Your task to perform on an android device: remove spam from my inbox in the gmail app Image 0: 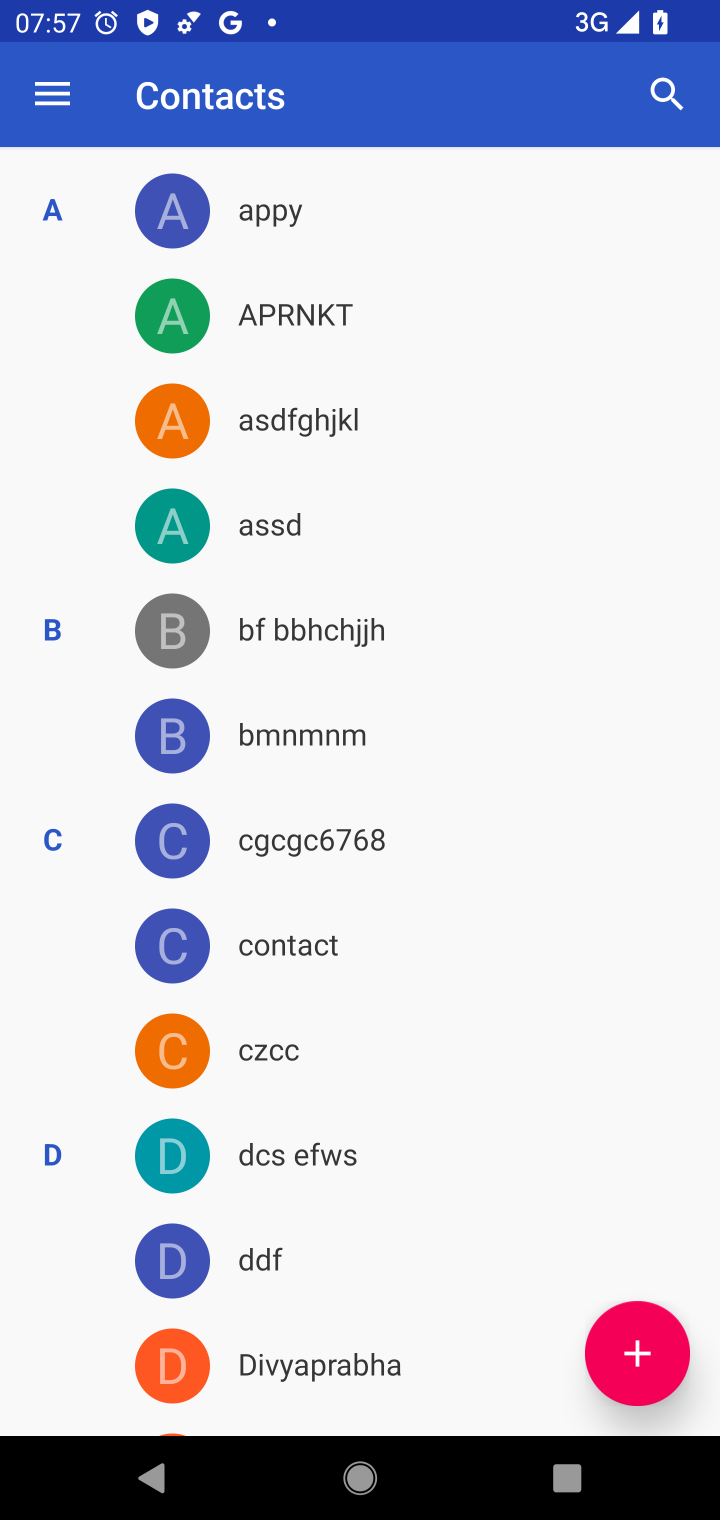
Step 0: press home button
Your task to perform on an android device: remove spam from my inbox in the gmail app Image 1: 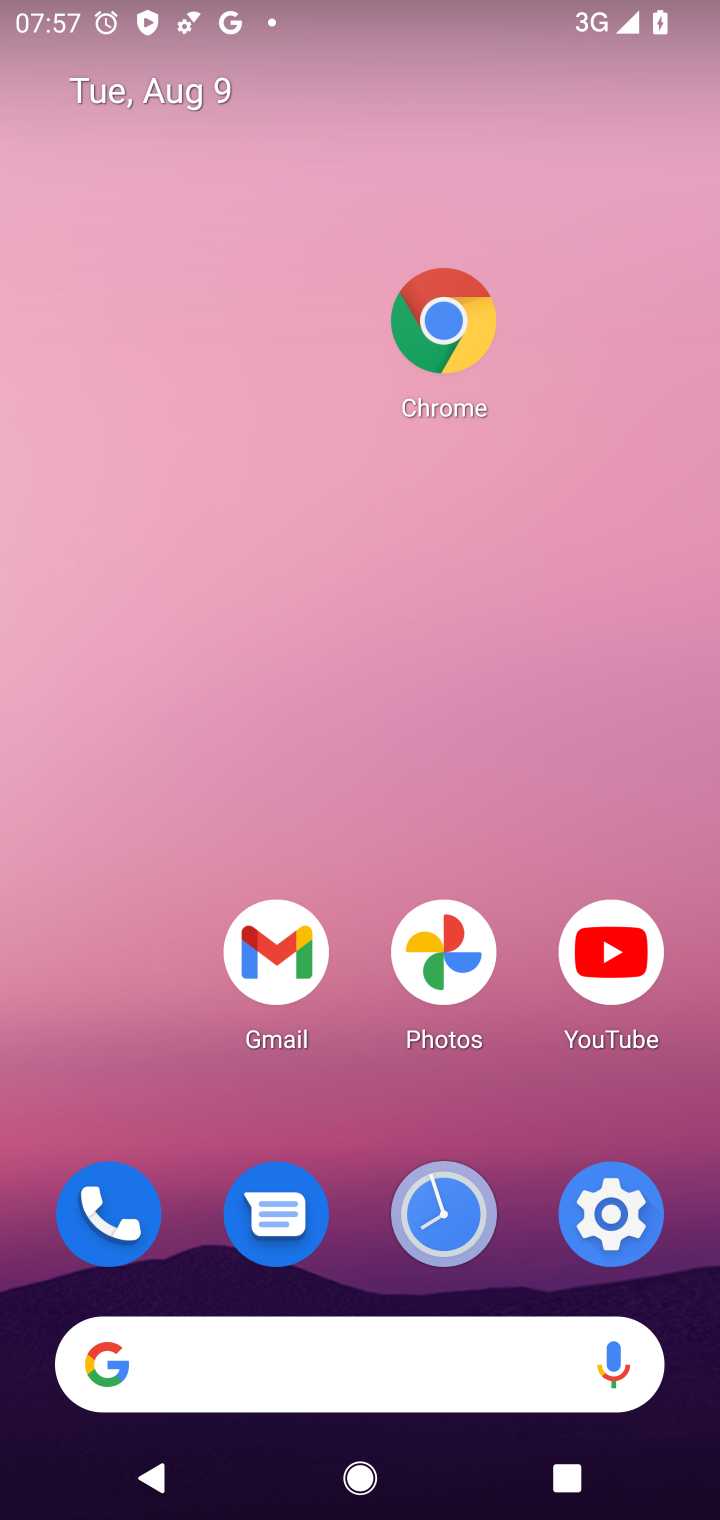
Step 1: click (287, 946)
Your task to perform on an android device: remove spam from my inbox in the gmail app Image 2: 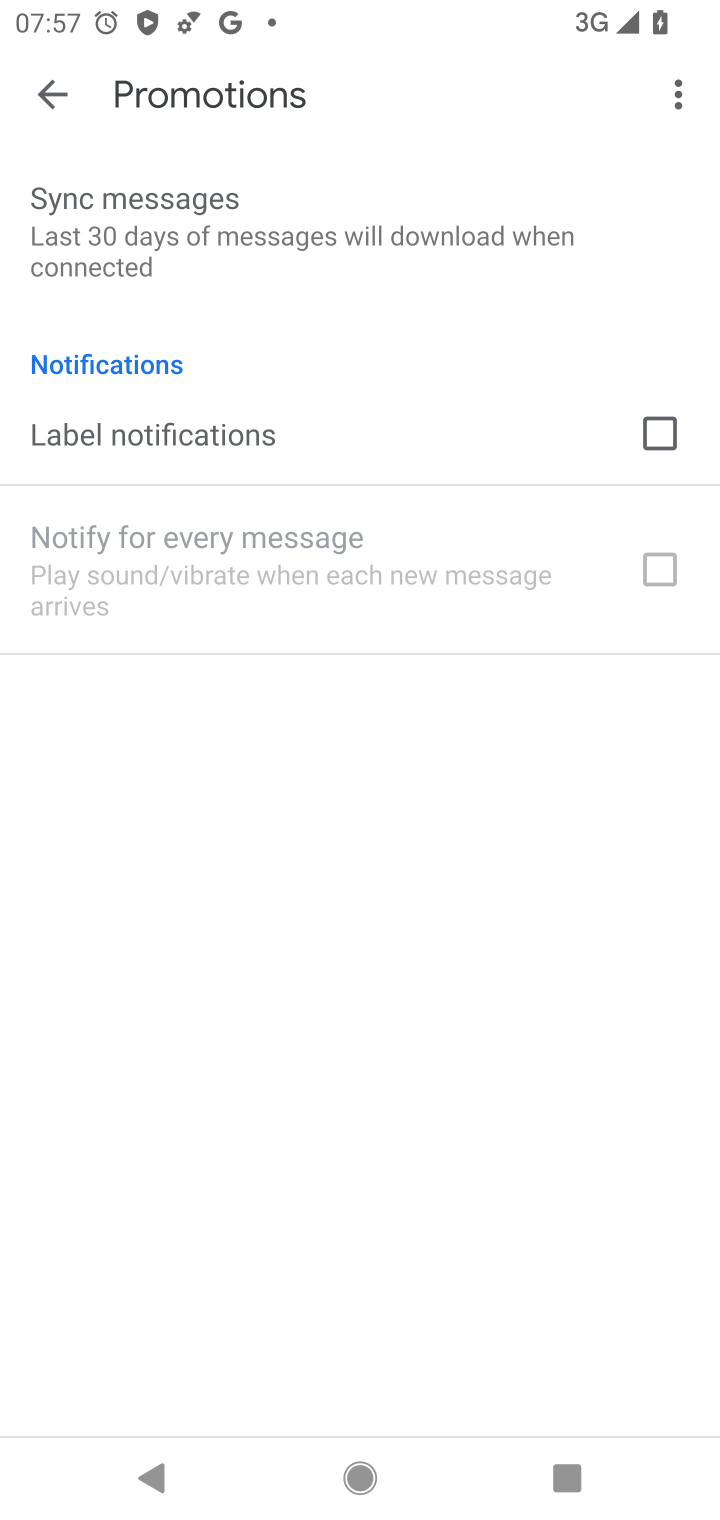
Step 2: click (45, 94)
Your task to perform on an android device: remove spam from my inbox in the gmail app Image 3: 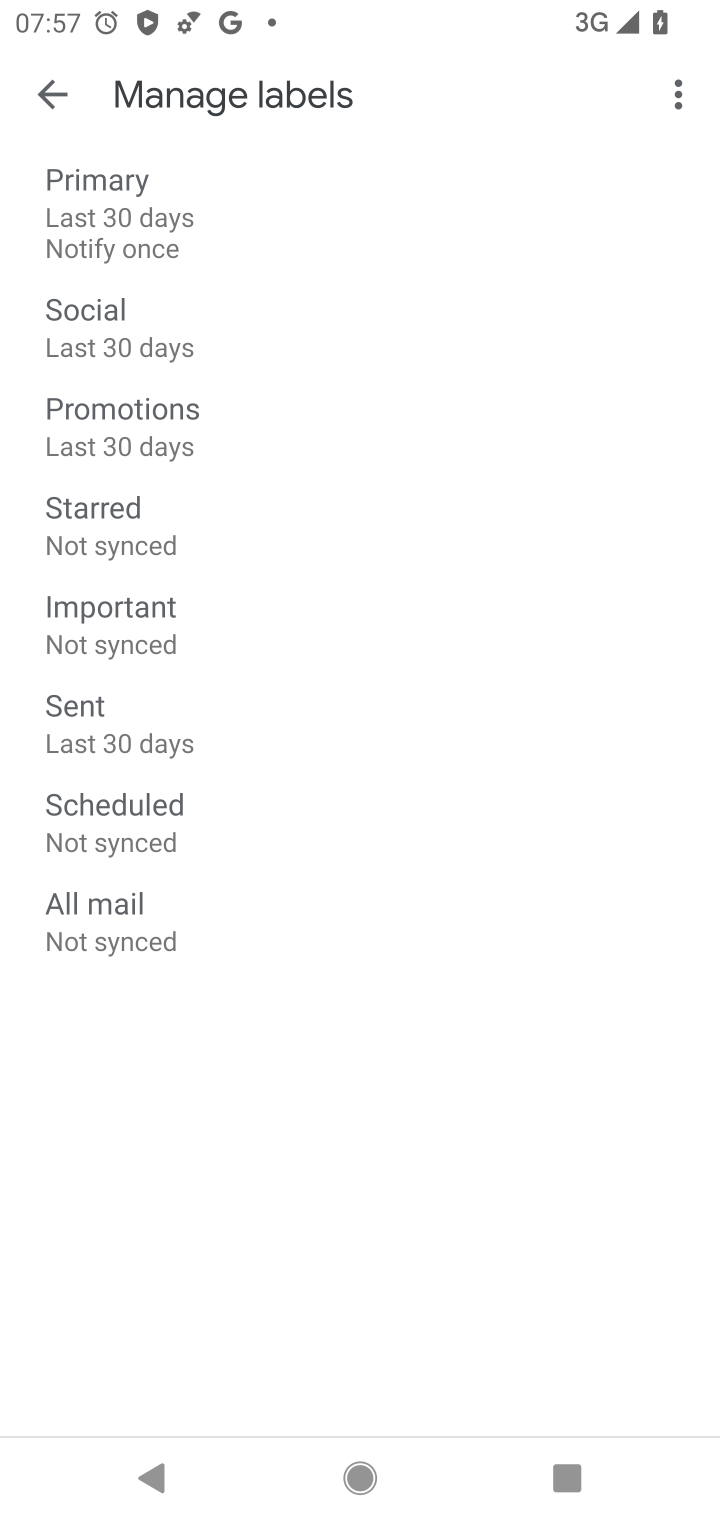
Step 3: click (48, 100)
Your task to perform on an android device: remove spam from my inbox in the gmail app Image 4: 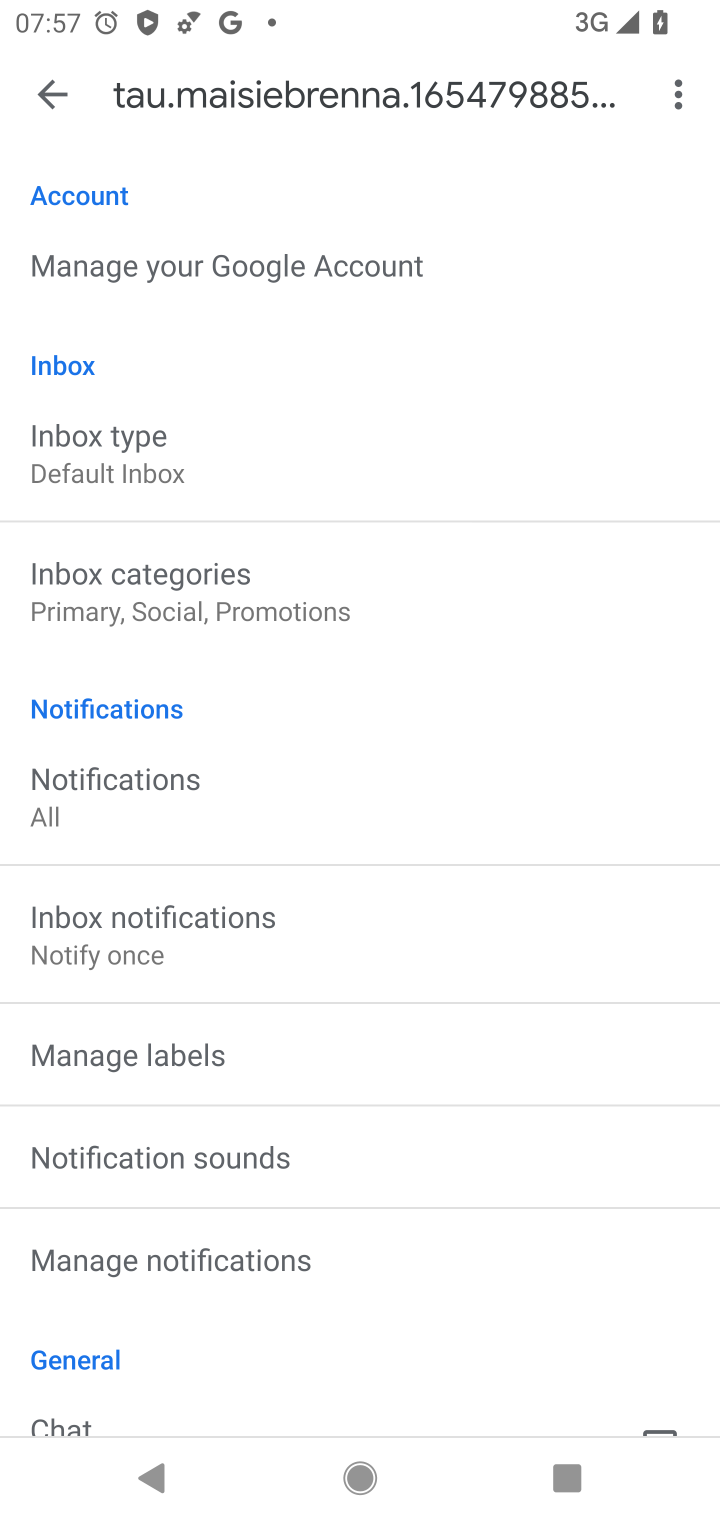
Step 4: click (49, 104)
Your task to perform on an android device: remove spam from my inbox in the gmail app Image 5: 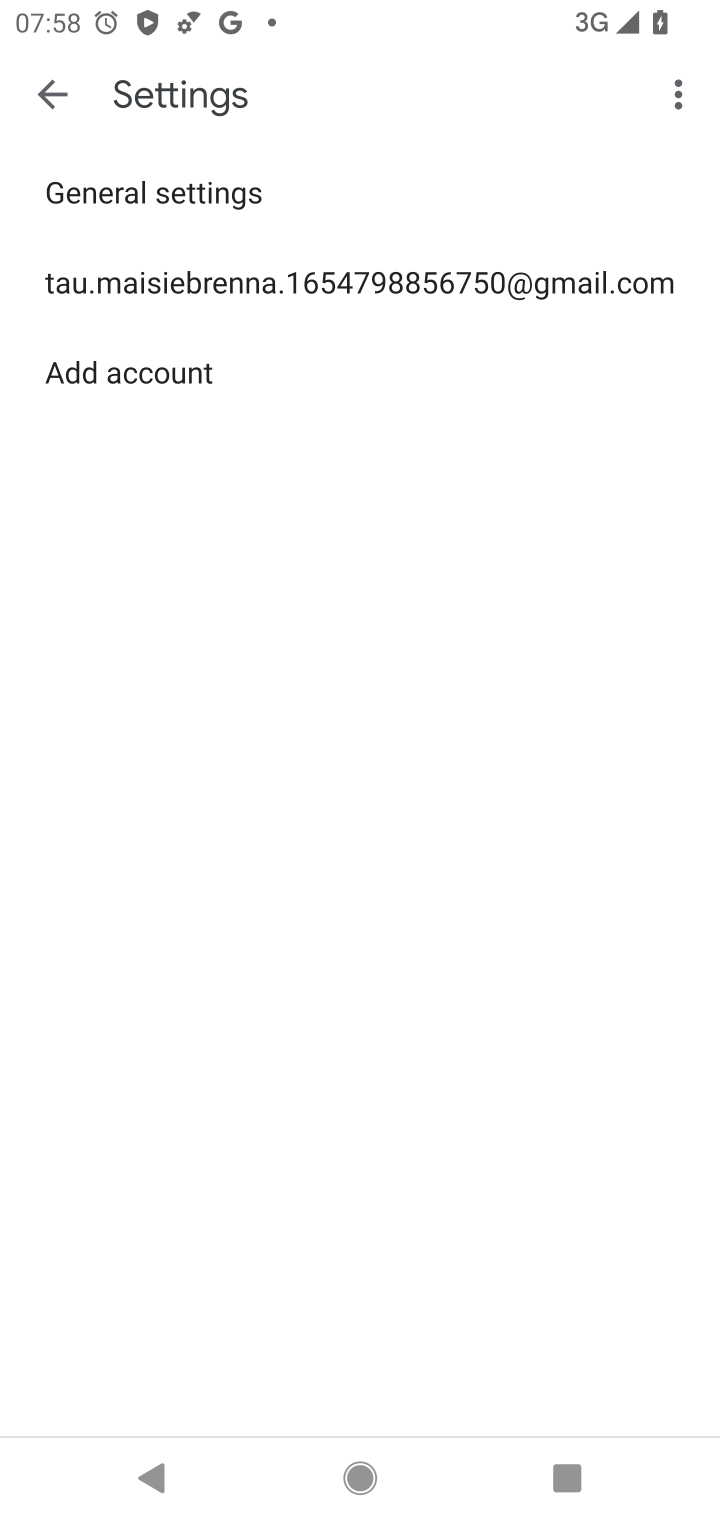
Step 5: click (50, 96)
Your task to perform on an android device: remove spam from my inbox in the gmail app Image 6: 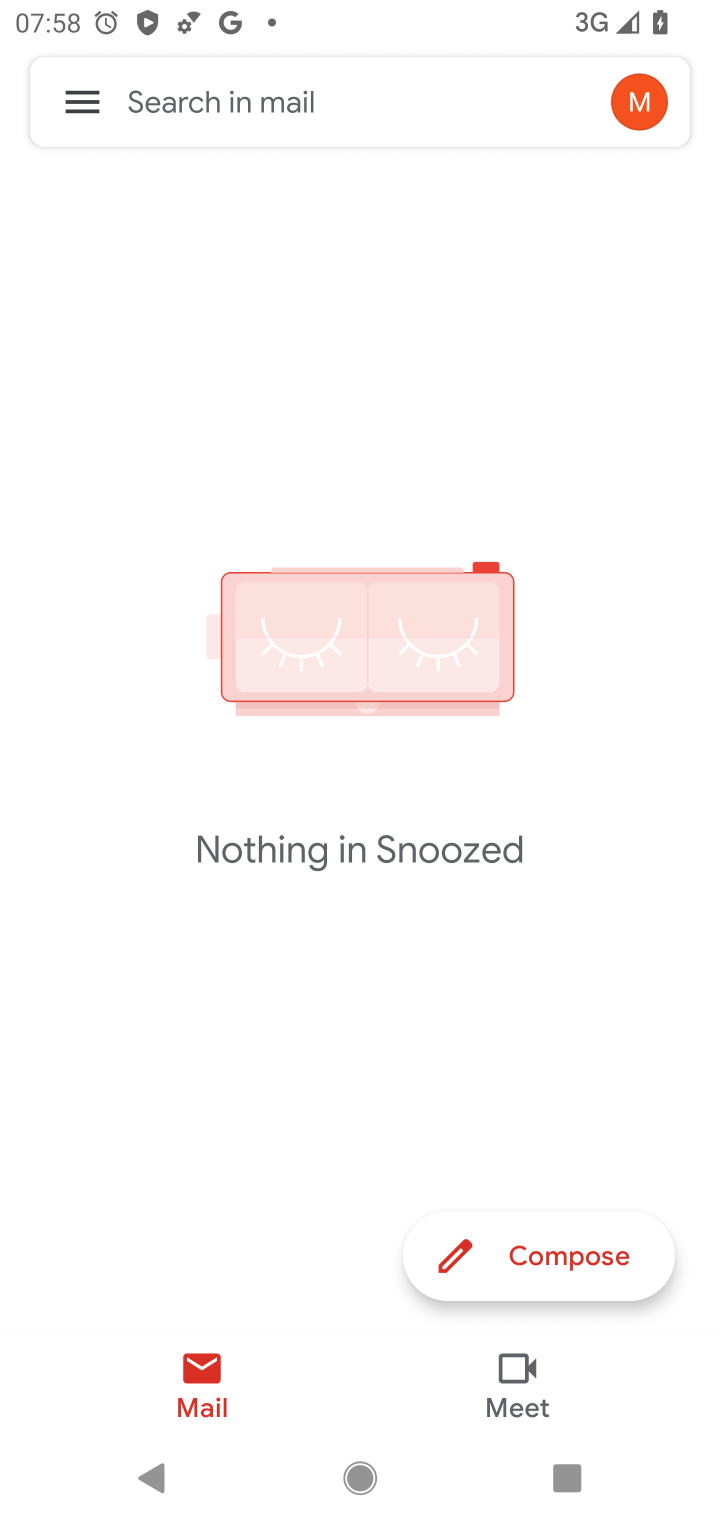
Step 6: click (73, 115)
Your task to perform on an android device: remove spam from my inbox in the gmail app Image 7: 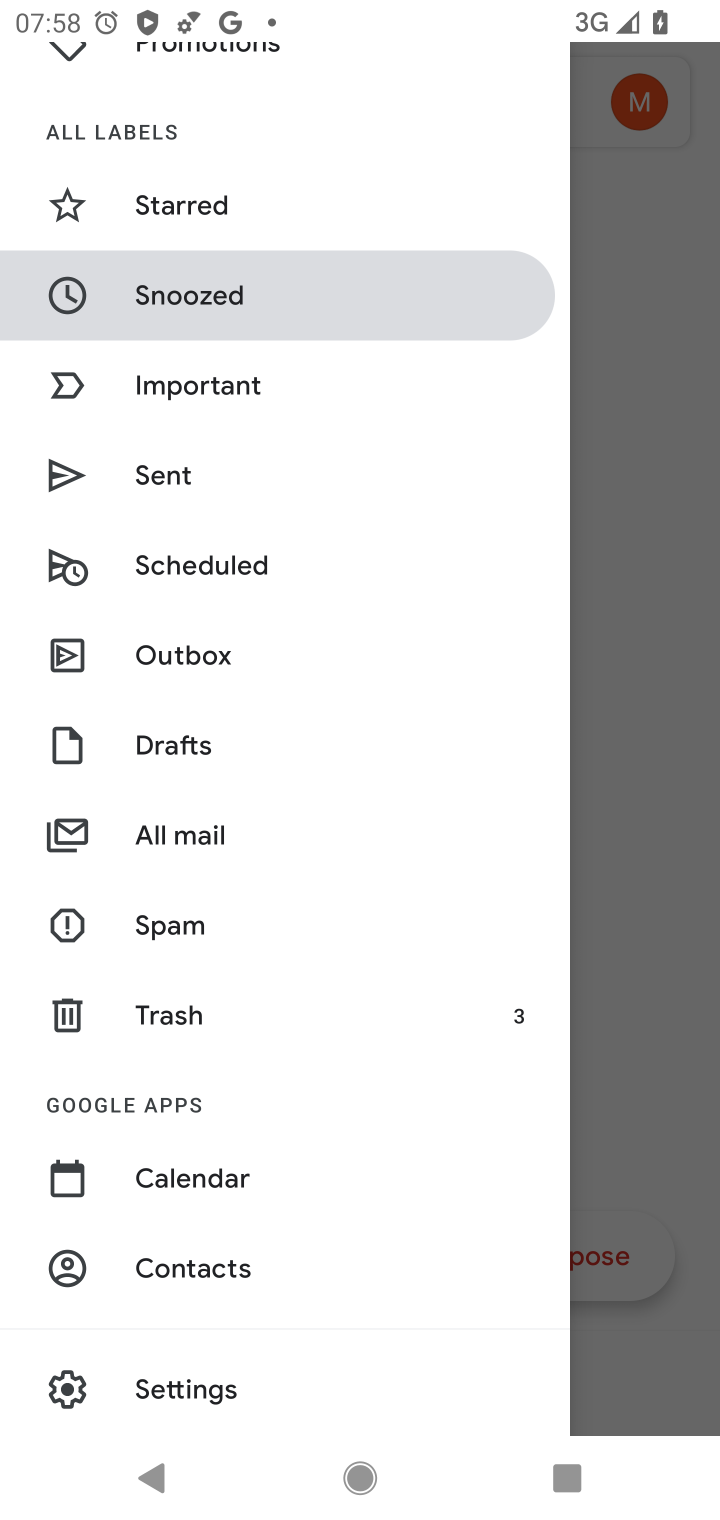
Step 7: click (169, 913)
Your task to perform on an android device: remove spam from my inbox in the gmail app Image 8: 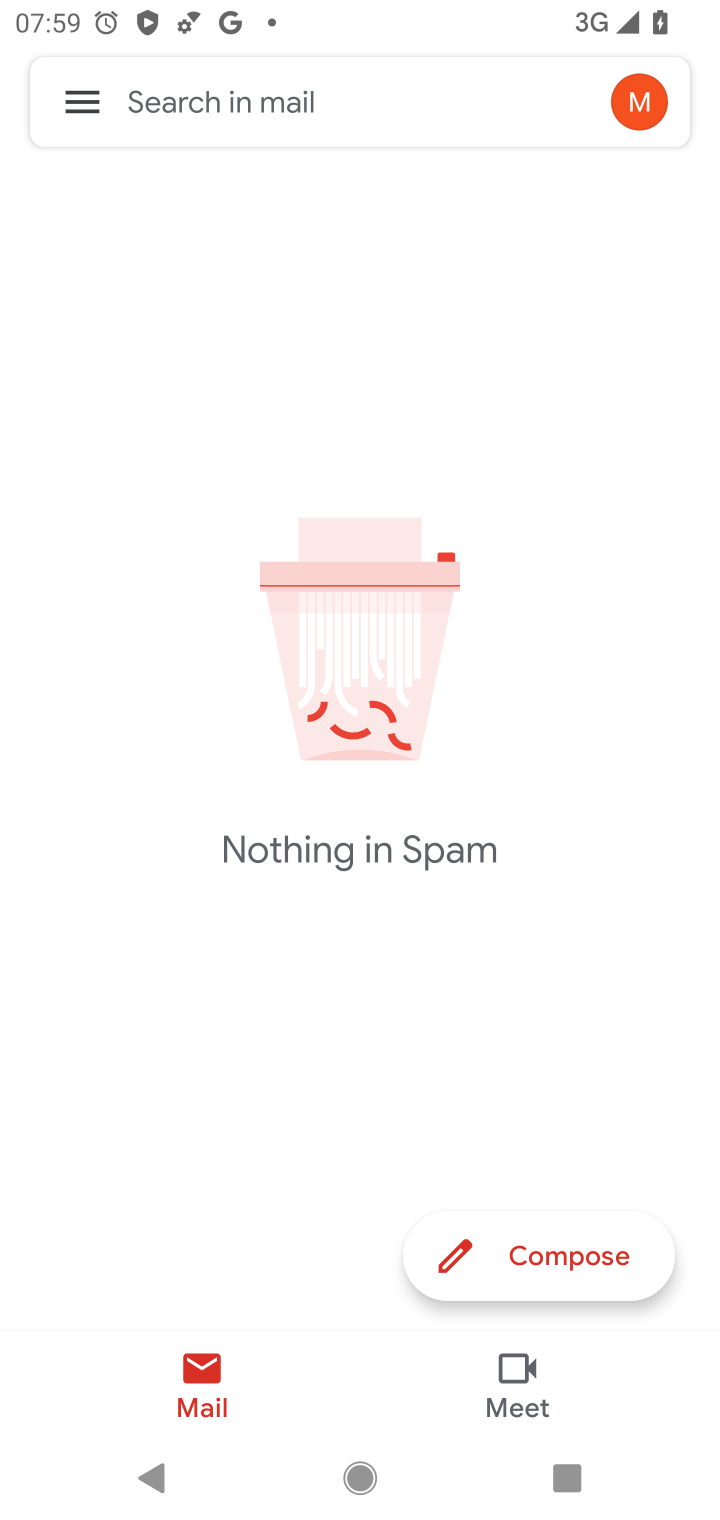
Step 8: task complete